Your task to perform on an android device: change the clock display to show seconds Image 0: 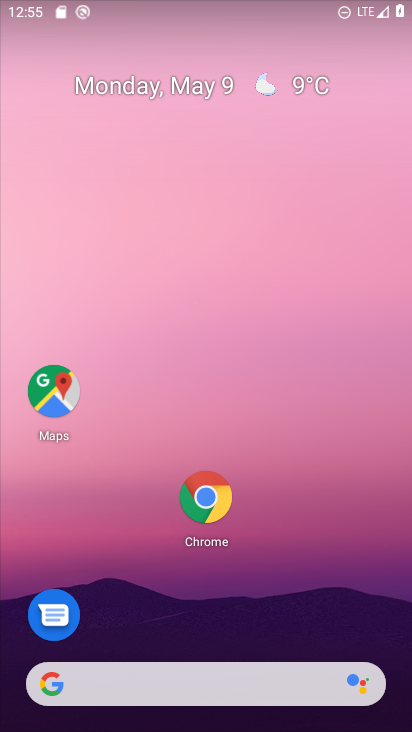
Step 0: drag from (316, 496) to (270, 93)
Your task to perform on an android device: change the clock display to show seconds Image 1: 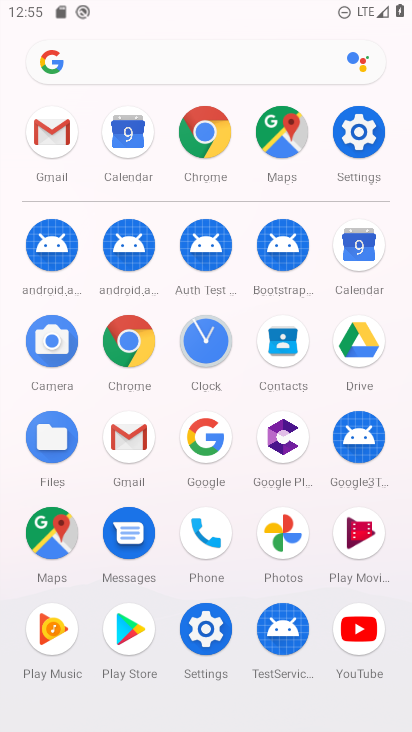
Step 1: click (204, 336)
Your task to perform on an android device: change the clock display to show seconds Image 2: 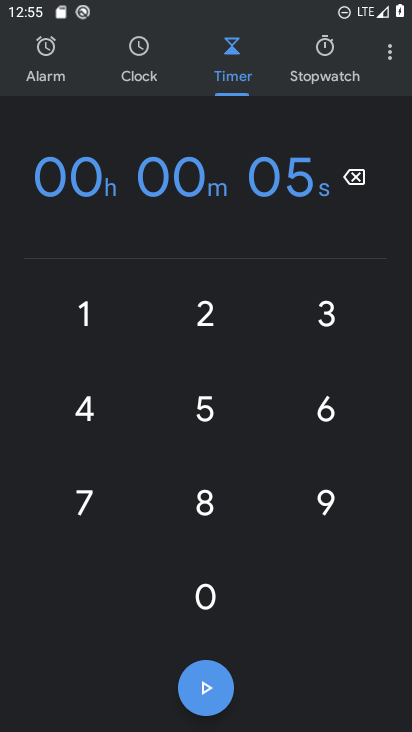
Step 2: click (386, 50)
Your task to perform on an android device: change the clock display to show seconds Image 3: 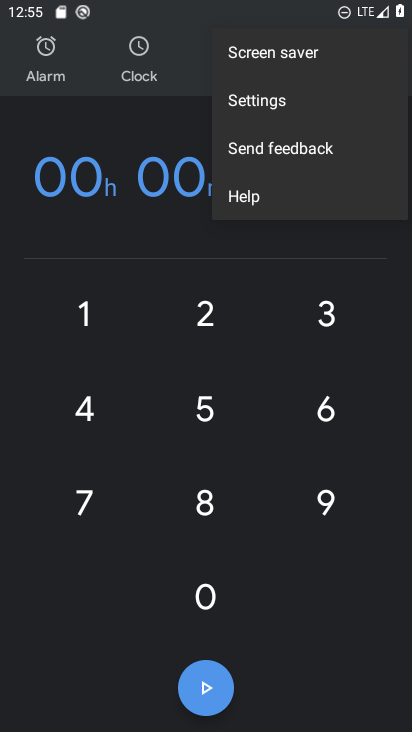
Step 3: click (291, 96)
Your task to perform on an android device: change the clock display to show seconds Image 4: 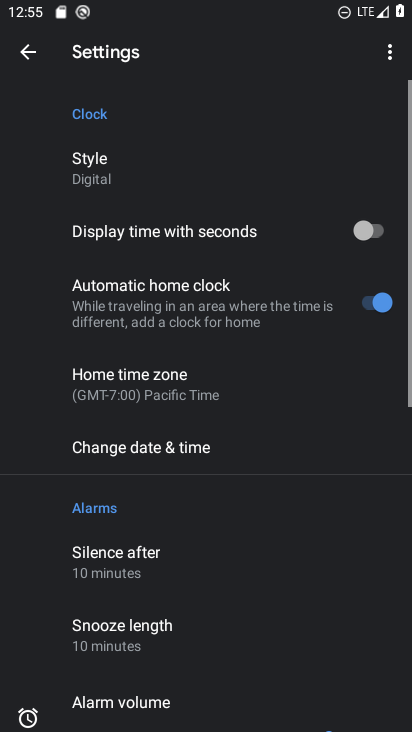
Step 4: click (374, 236)
Your task to perform on an android device: change the clock display to show seconds Image 5: 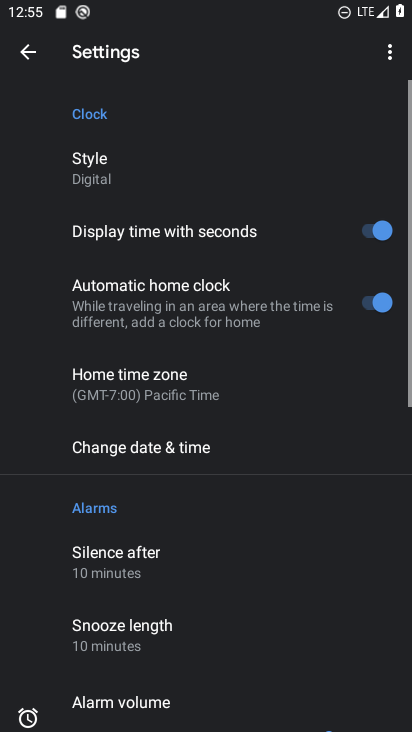
Step 5: task complete